Your task to perform on an android device: Check the news Image 0: 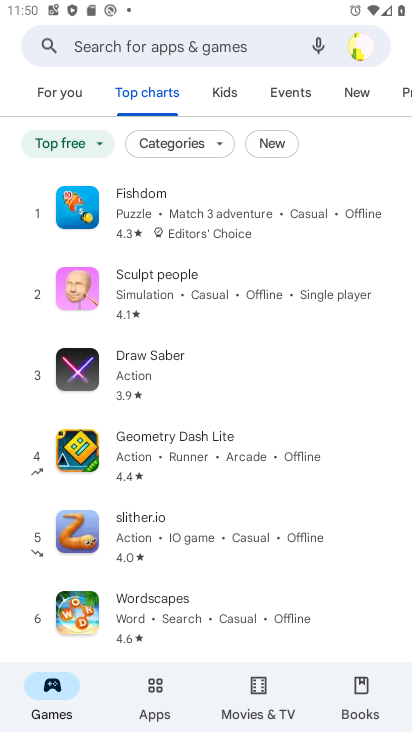
Step 0: press home button
Your task to perform on an android device: Check the news Image 1: 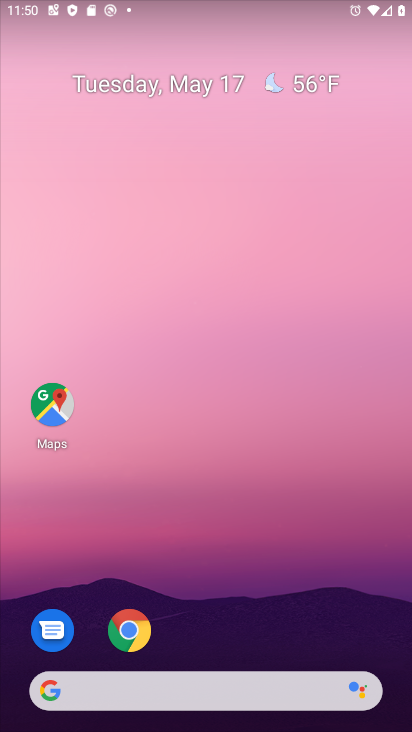
Step 1: drag from (368, 608) to (318, 146)
Your task to perform on an android device: Check the news Image 2: 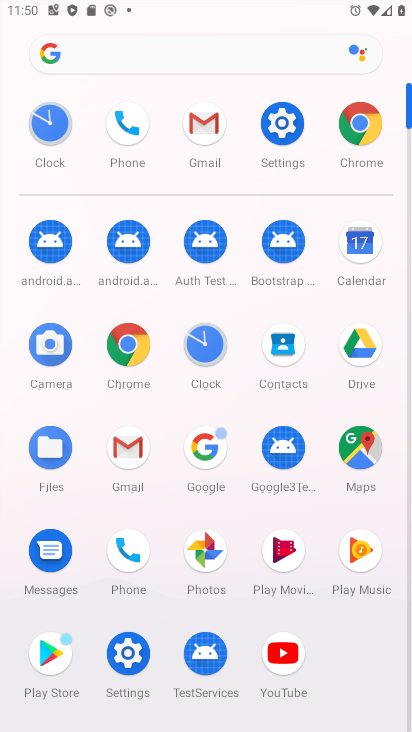
Step 2: click (137, 363)
Your task to perform on an android device: Check the news Image 3: 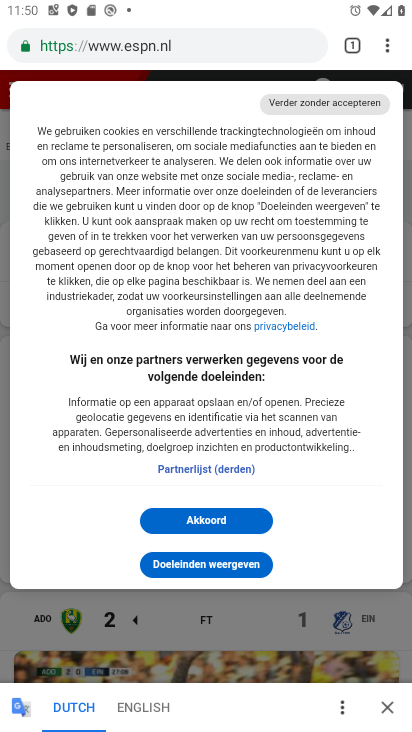
Step 3: click (165, 47)
Your task to perform on an android device: Check the news Image 4: 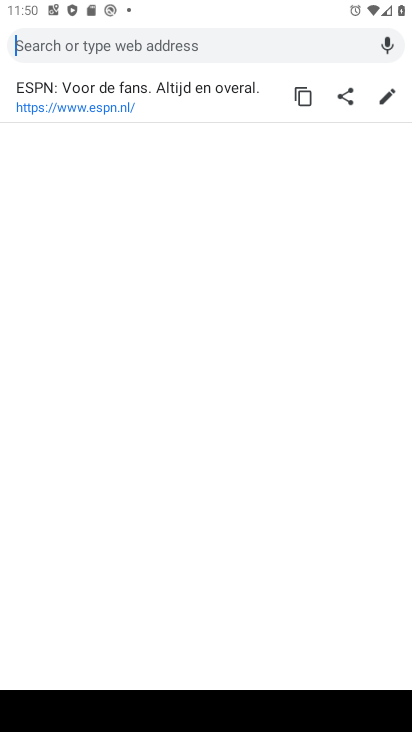
Step 4: type "check the news"
Your task to perform on an android device: Check the news Image 5: 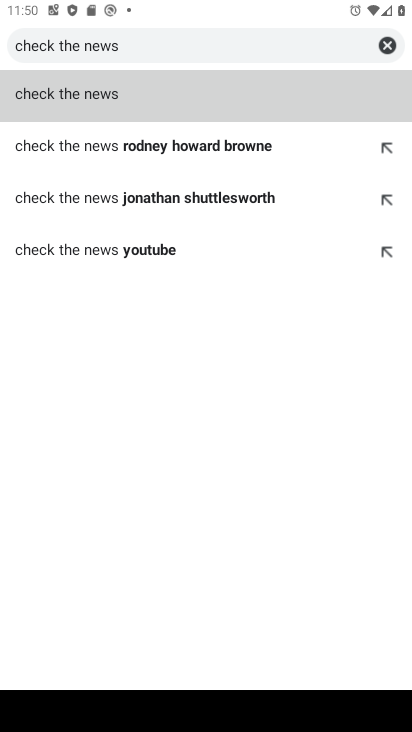
Step 5: click (85, 93)
Your task to perform on an android device: Check the news Image 6: 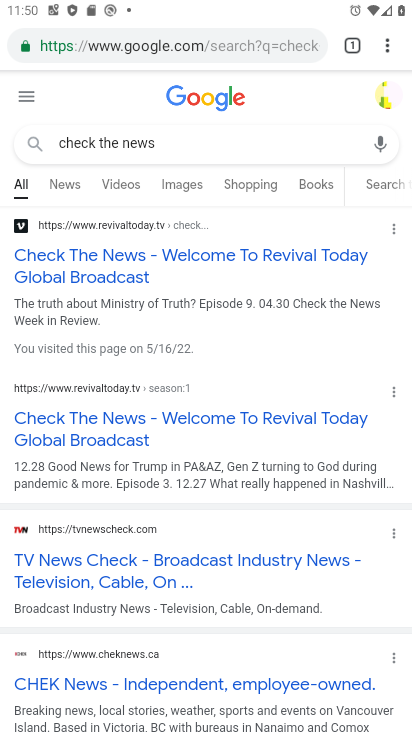
Step 6: task complete